Your task to perform on an android device: Open battery settings Image 0: 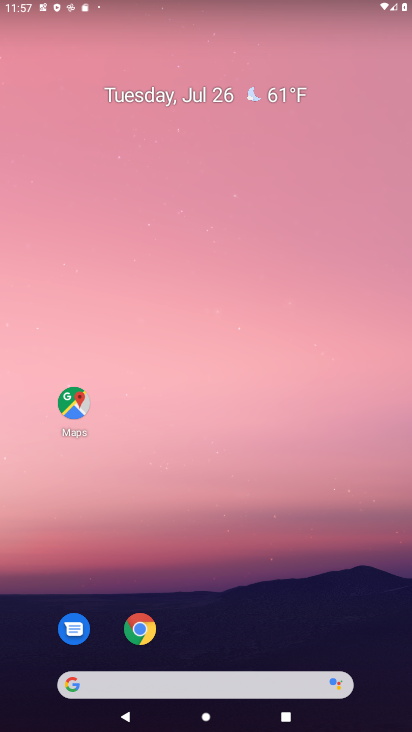
Step 0: drag from (289, 630) to (289, 265)
Your task to perform on an android device: Open battery settings Image 1: 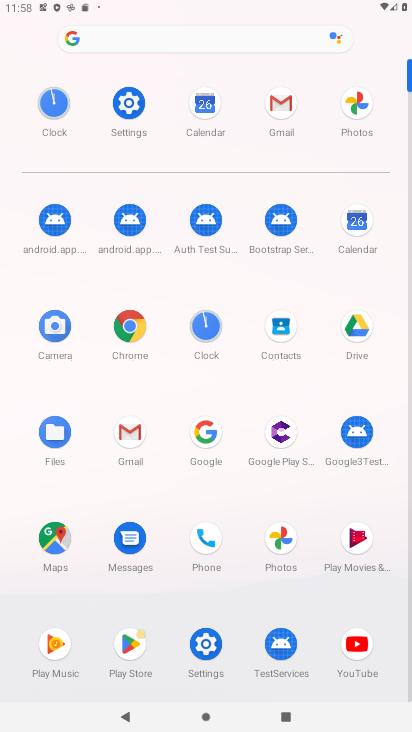
Step 1: click (135, 98)
Your task to perform on an android device: Open battery settings Image 2: 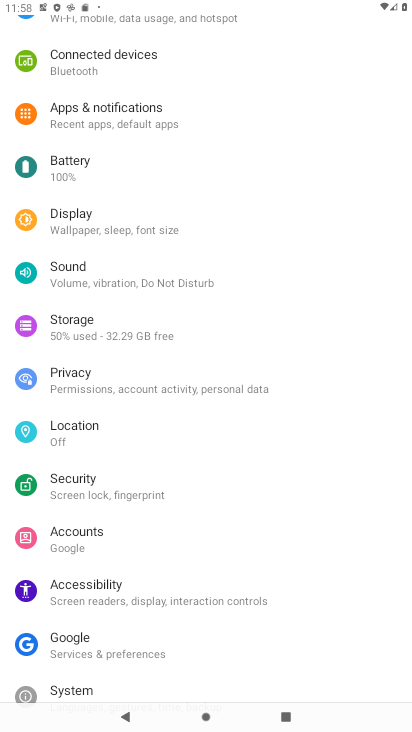
Step 2: click (111, 163)
Your task to perform on an android device: Open battery settings Image 3: 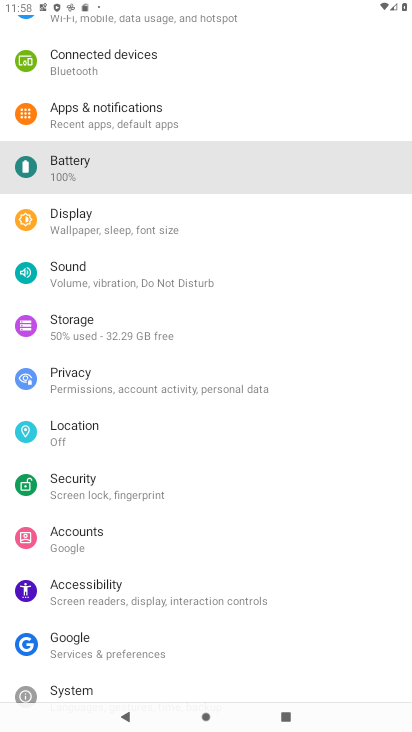
Step 3: task complete